Your task to perform on an android device: install app "Pluto TV - Live TV and Movies" Image 0: 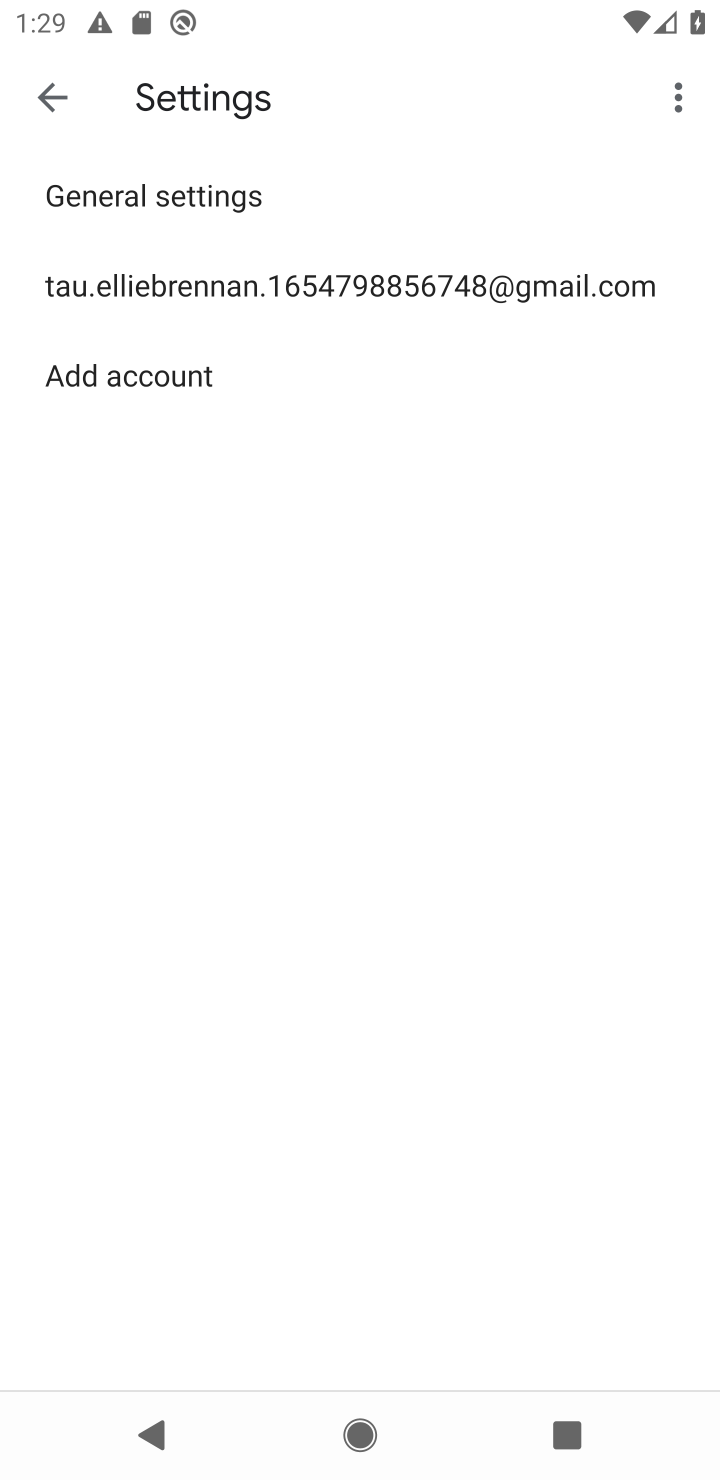
Step 0: press home button
Your task to perform on an android device: install app "Pluto TV - Live TV and Movies" Image 1: 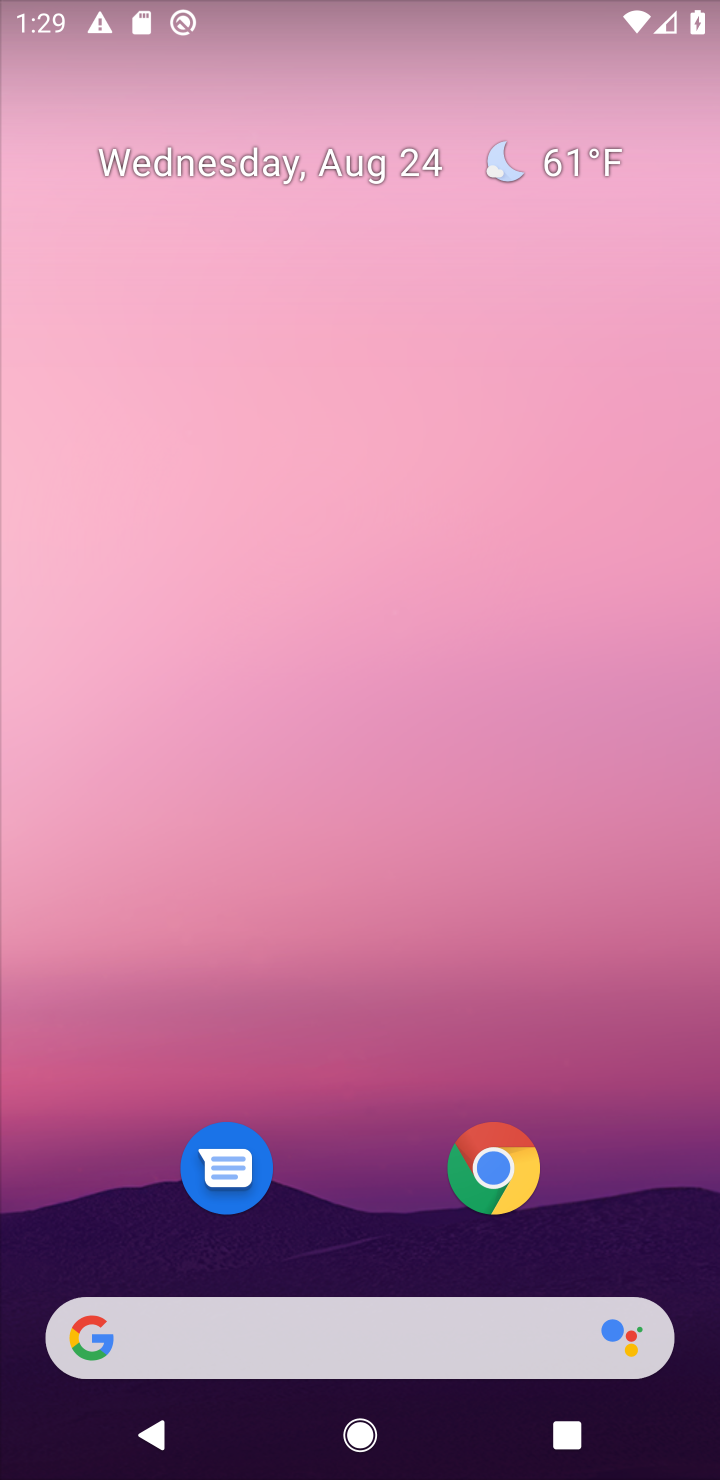
Step 1: drag from (683, 1291) to (600, 268)
Your task to perform on an android device: install app "Pluto TV - Live TV and Movies" Image 2: 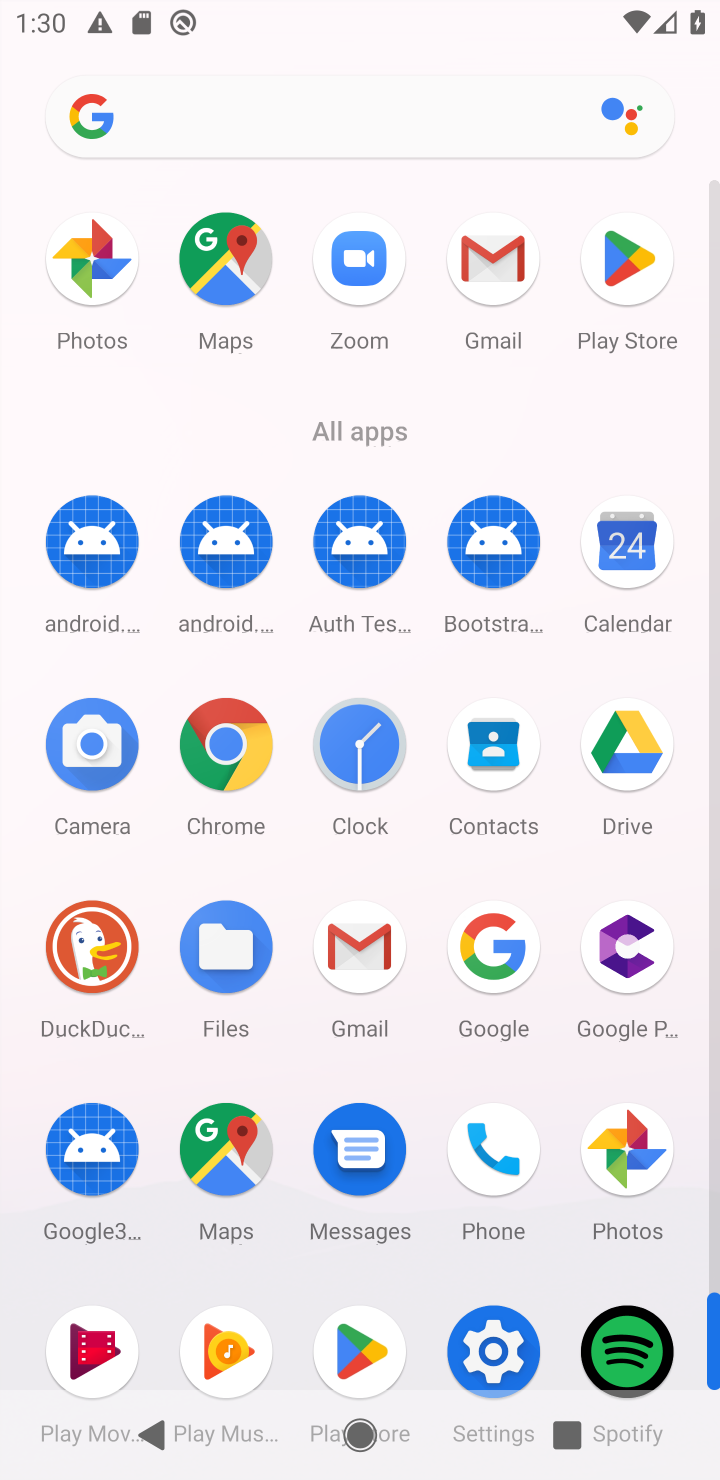
Step 2: click (362, 1356)
Your task to perform on an android device: install app "Pluto TV - Live TV and Movies" Image 3: 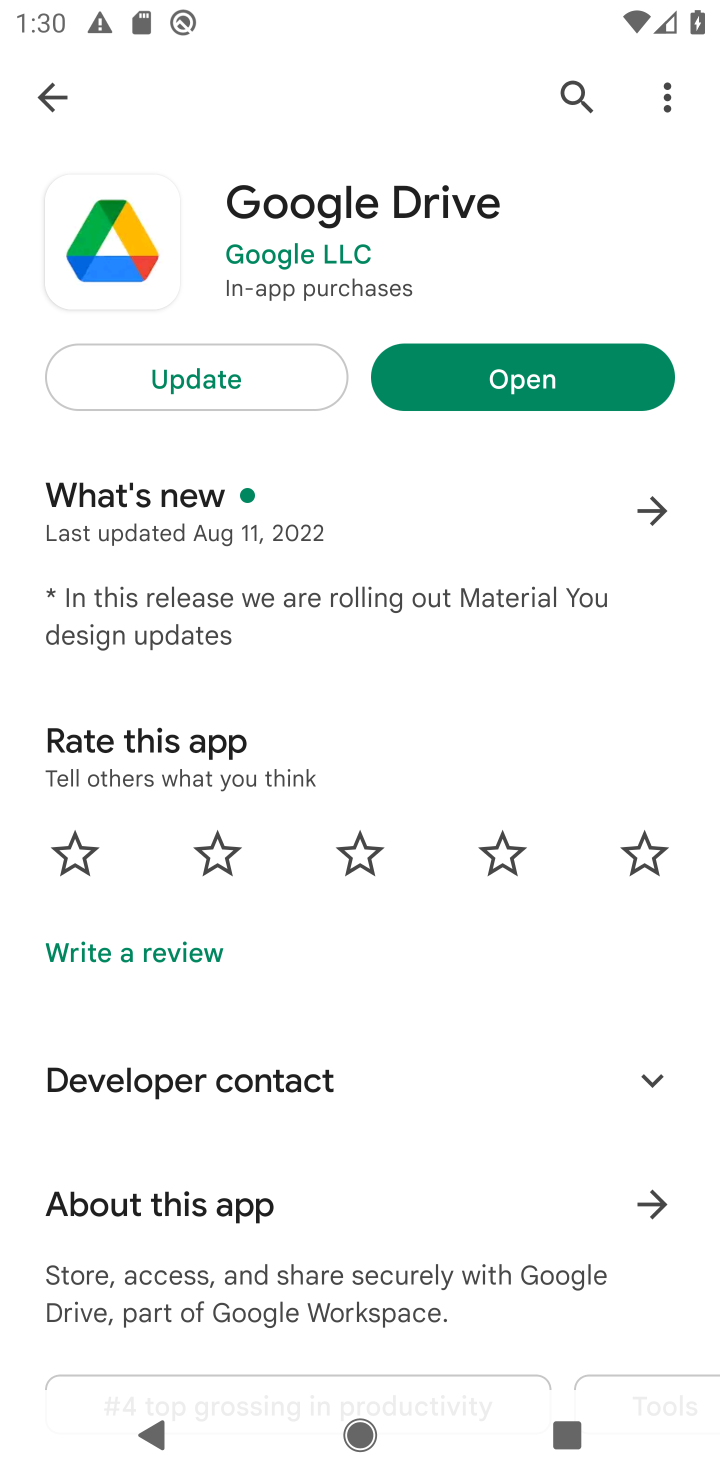
Step 3: click (568, 86)
Your task to perform on an android device: install app "Pluto TV - Live TV and Movies" Image 4: 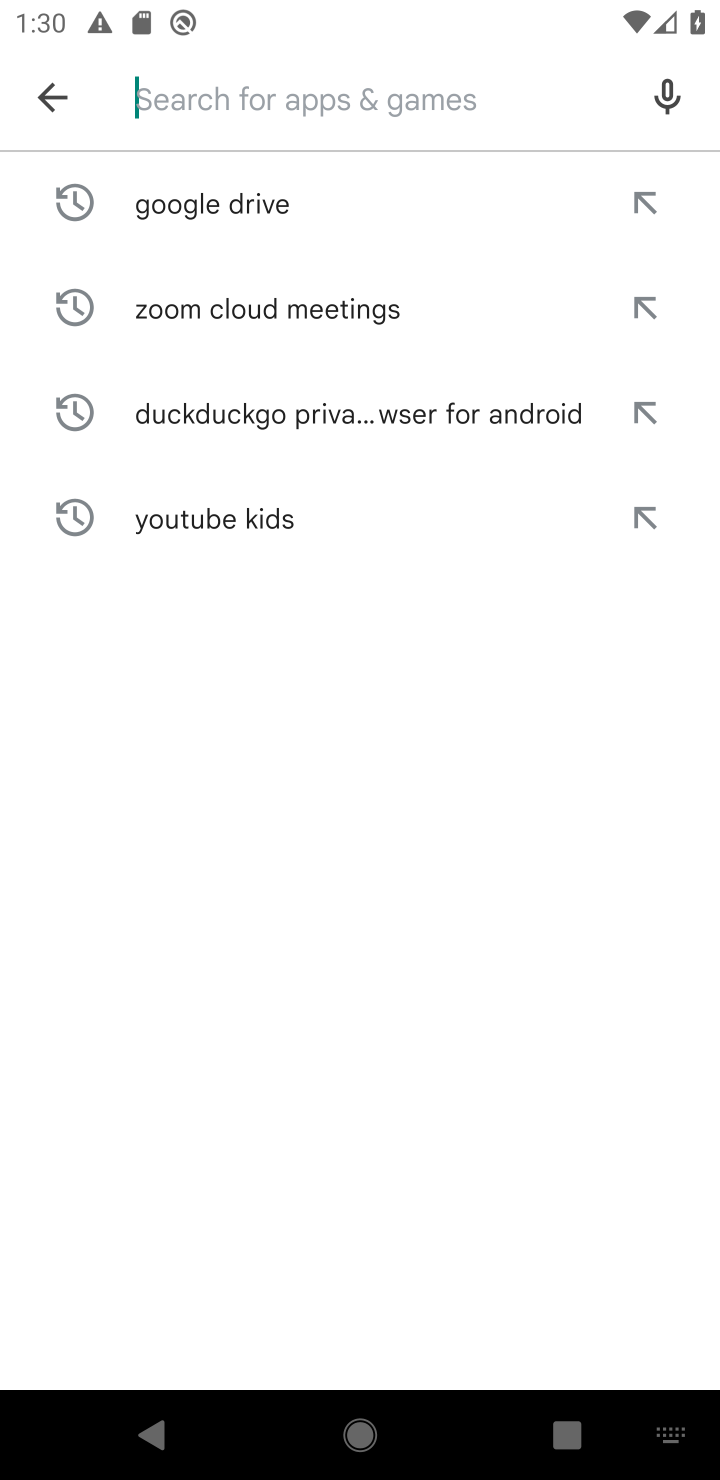
Step 4: type "Pluto TV - Live TV and Movies"
Your task to perform on an android device: install app "Pluto TV - Live TV and Movies" Image 5: 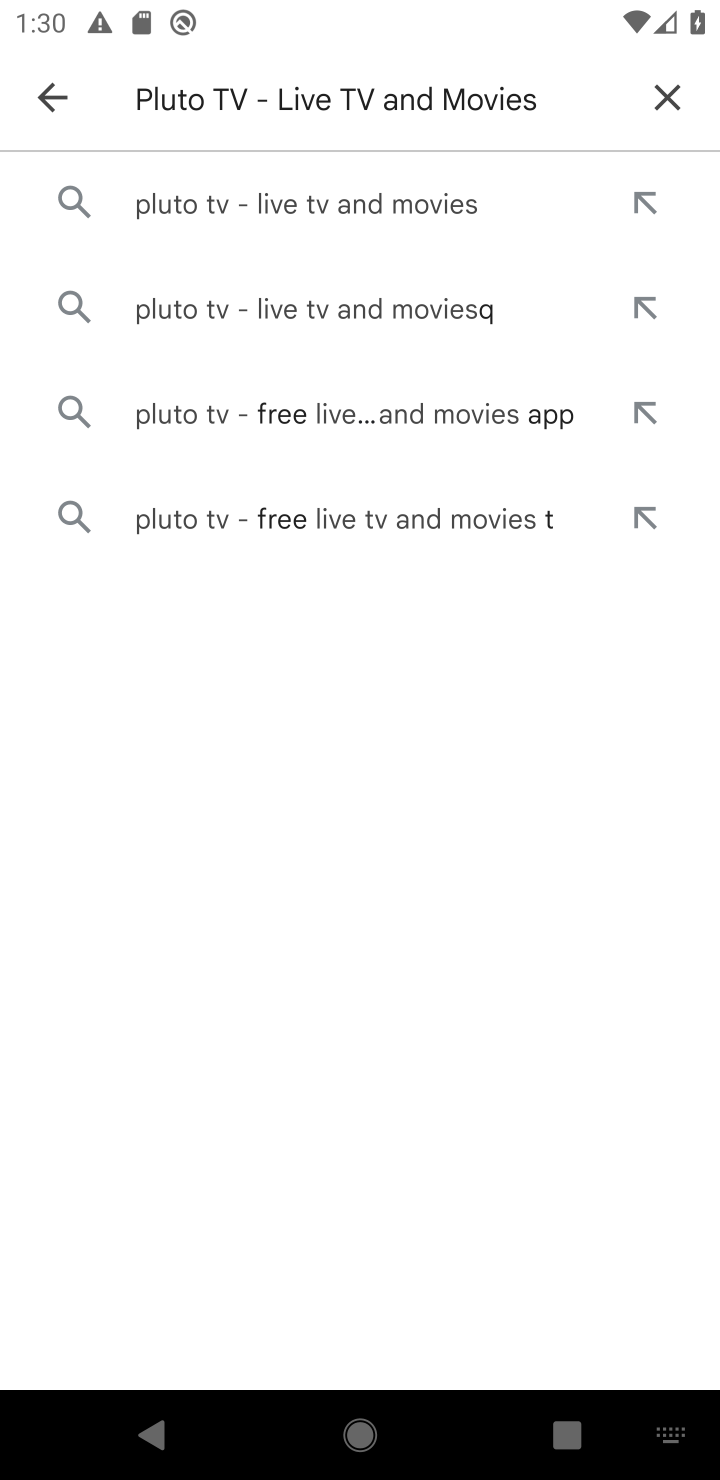
Step 5: click (184, 215)
Your task to perform on an android device: install app "Pluto TV - Live TV and Movies" Image 6: 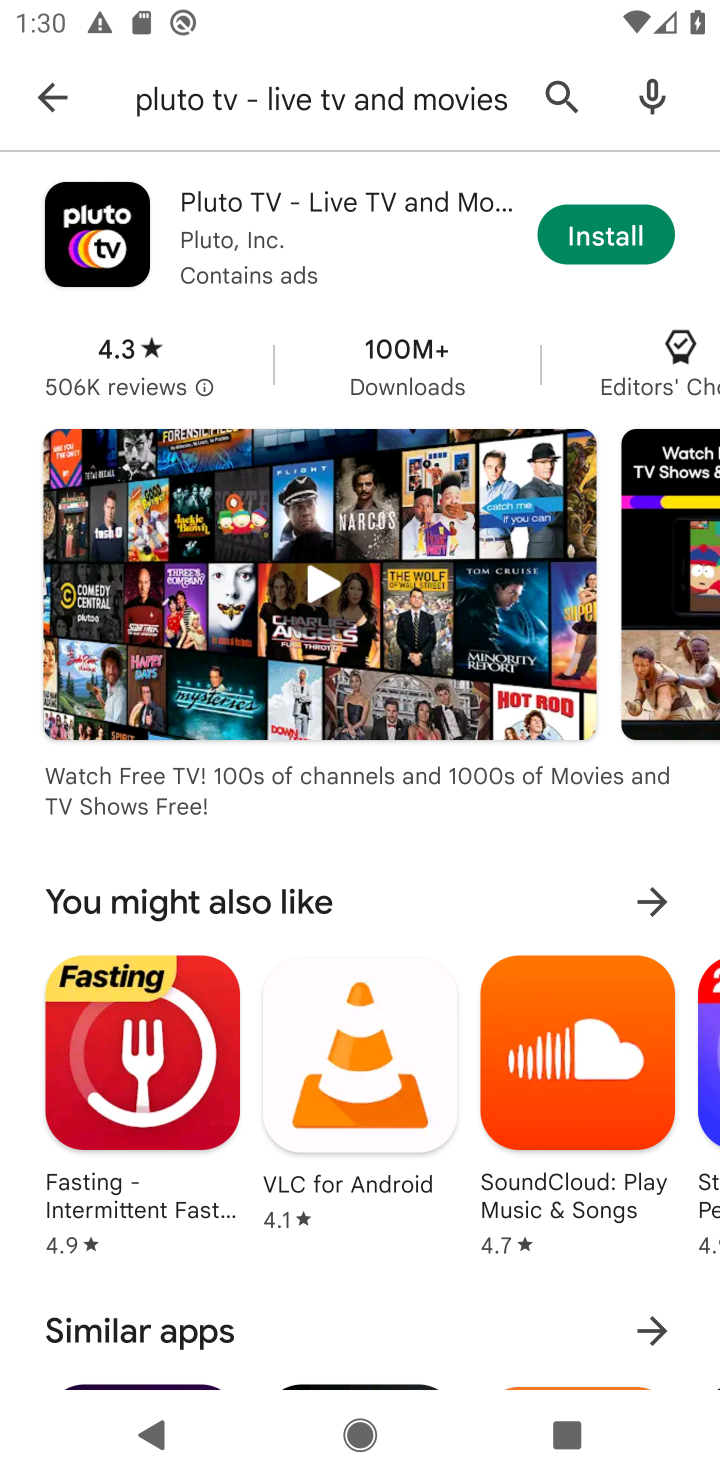
Step 6: click (266, 194)
Your task to perform on an android device: install app "Pluto TV - Live TV and Movies" Image 7: 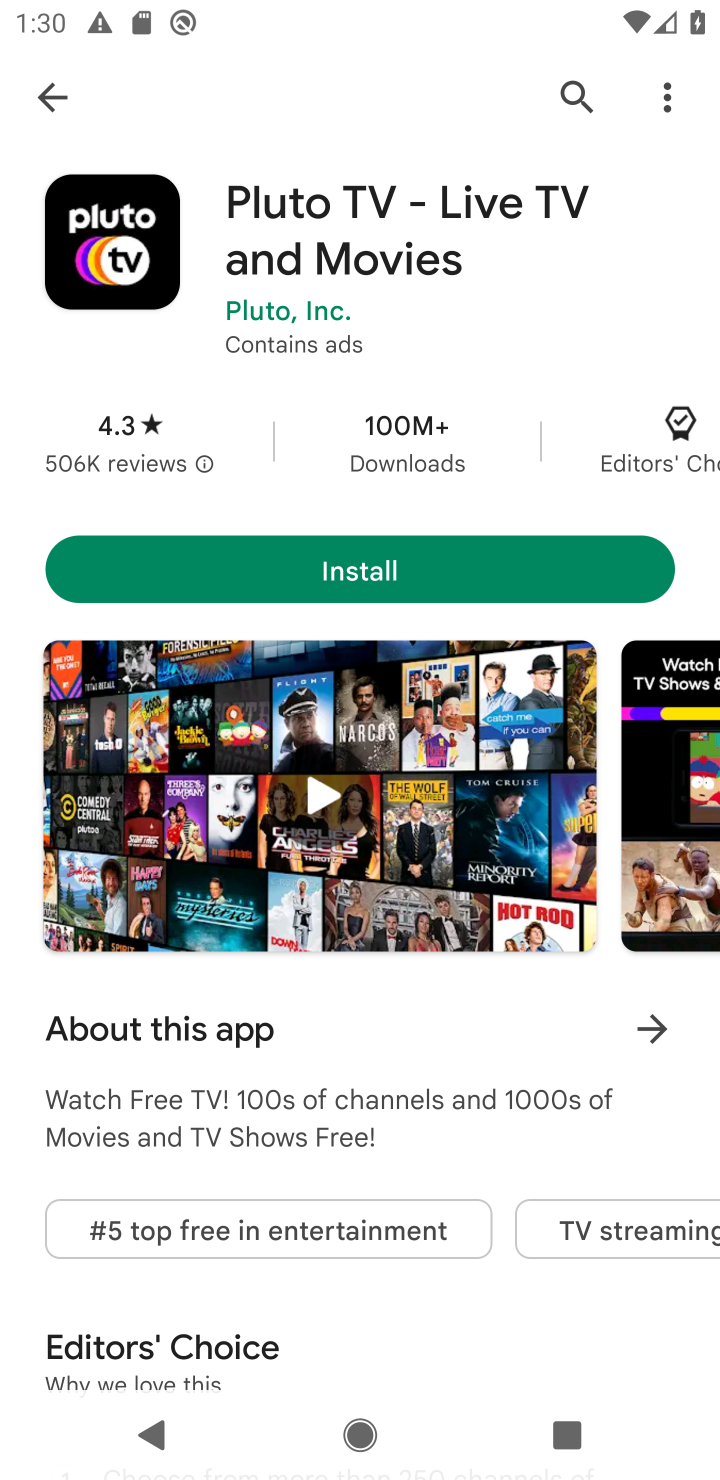
Step 7: click (366, 578)
Your task to perform on an android device: install app "Pluto TV - Live TV and Movies" Image 8: 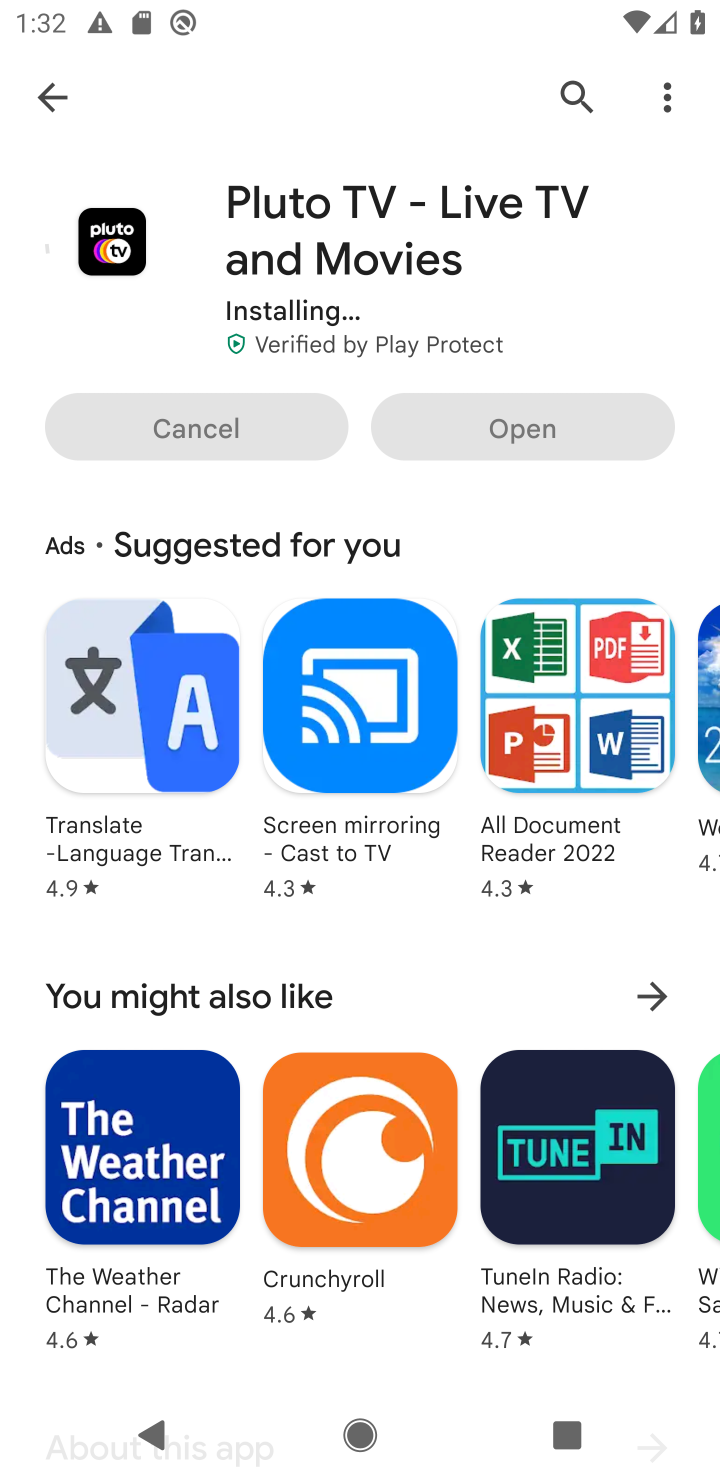
Step 8: press back button
Your task to perform on an android device: install app "Pluto TV - Live TV and Movies" Image 9: 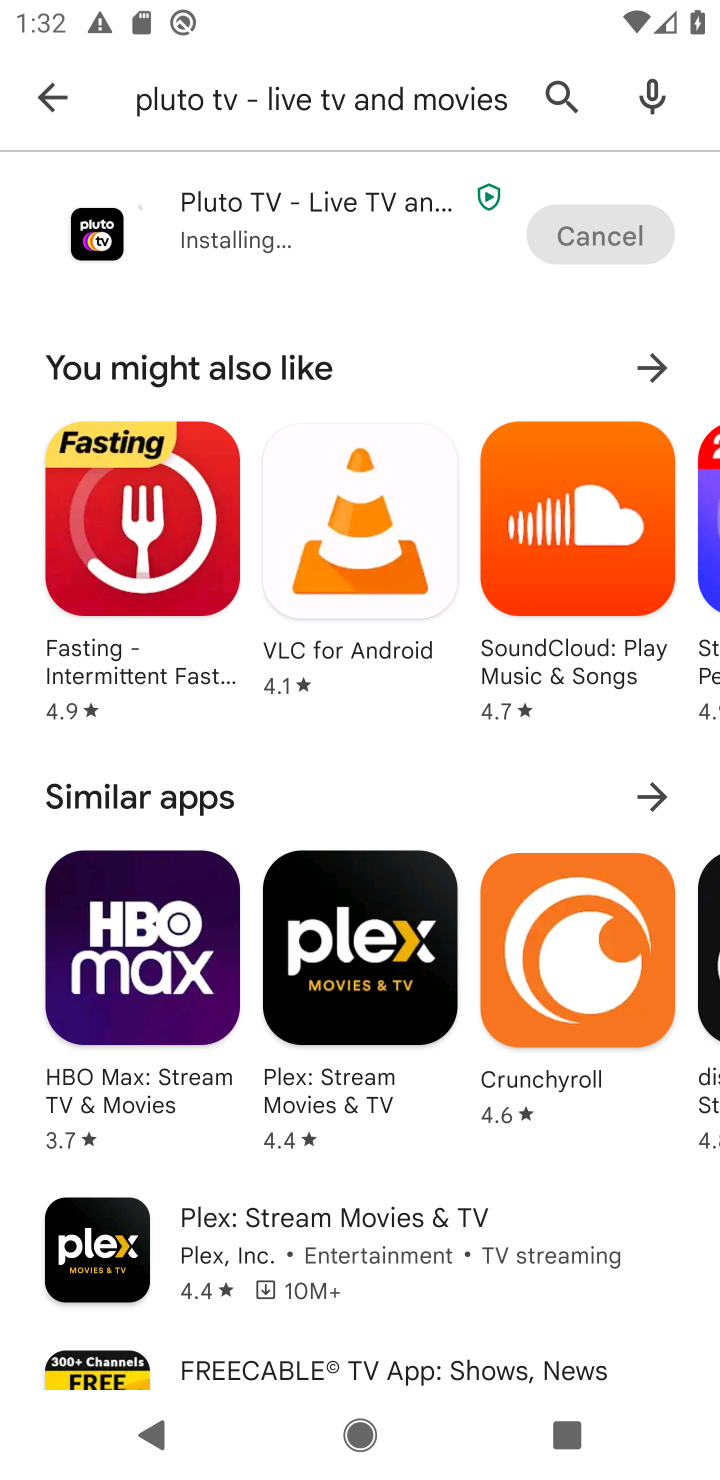
Step 9: click (241, 199)
Your task to perform on an android device: install app "Pluto TV - Live TV and Movies" Image 10: 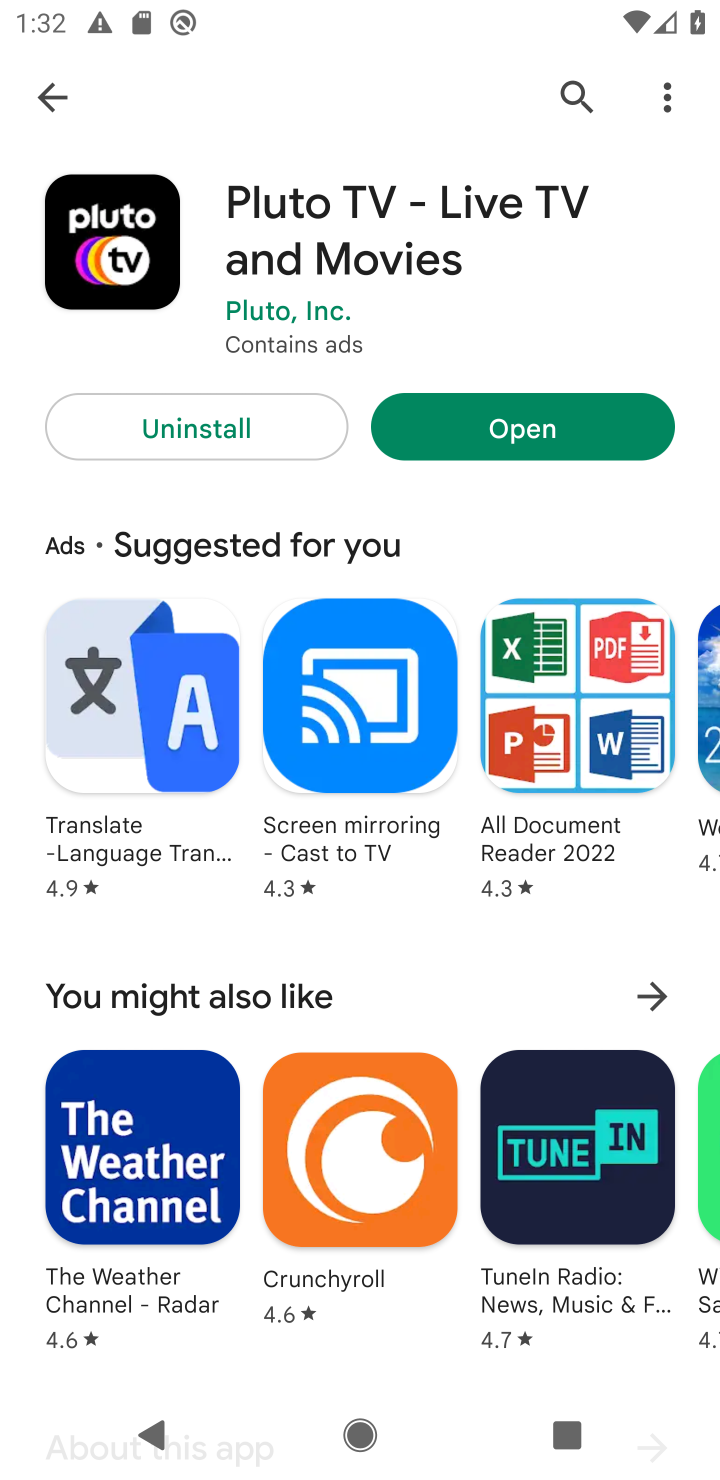
Step 10: task complete